Your task to perform on an android device: turn vacation reply on in the gmail app Image 0: 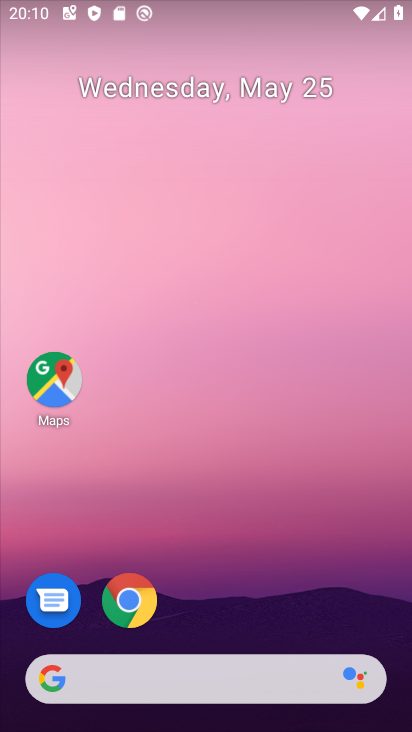
Step 0: drag from (389, 559) to (278, 148)
Your task to perform on an android device: turn vacation reply on in the gmail app Image 1: 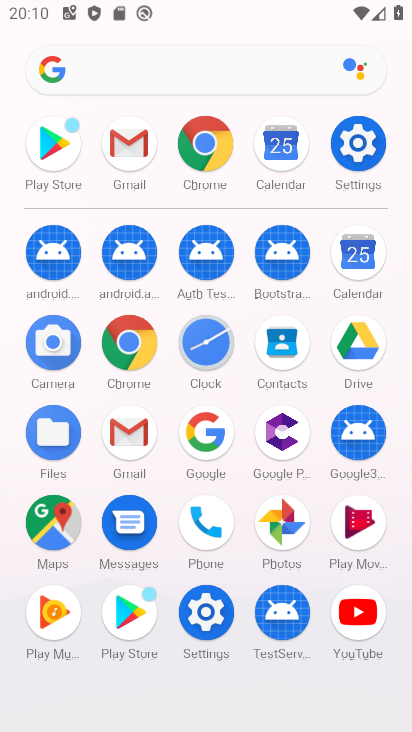
Step 1: click (122, 448)
Your task to perform on an android device: turn vacation reply on in the gmail app Image 2: 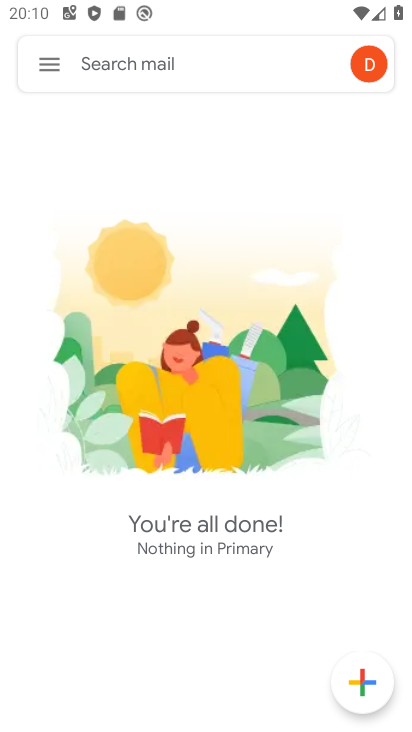
Step 2: click (54, 78)
Your task to perform on an android device: turn vacation reply on in the gmail app Image 3: 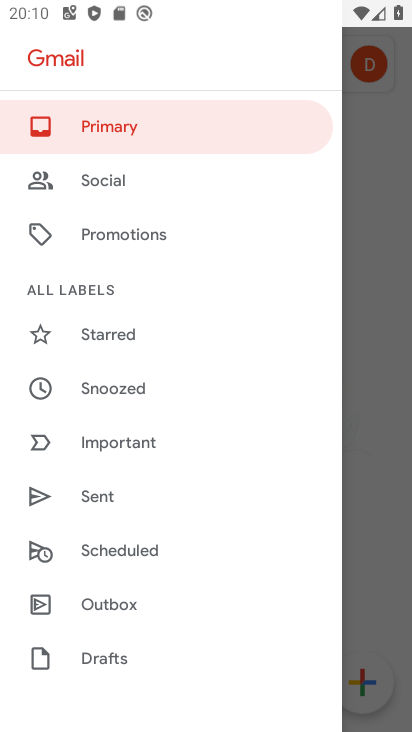
Step 3: drag from (232, 659) to (223, 134)
Your task to perform on an android device: turn vacation reply on in the gmail app Image 4: 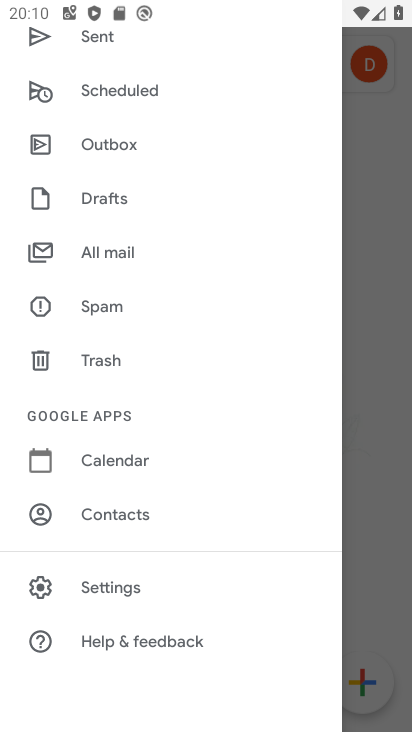
Step 4: click (154, 592)
Your task to perform on an android device: turn vacation reply on in the gmail app Image 5: 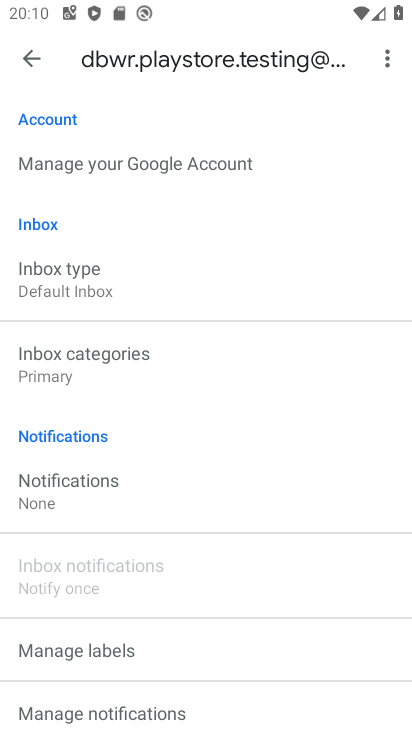
Step 5: drag from (221, 610) to (204, 230)
Your task to perform on an android device: turn vacation reply on in the gmail app Image 6: 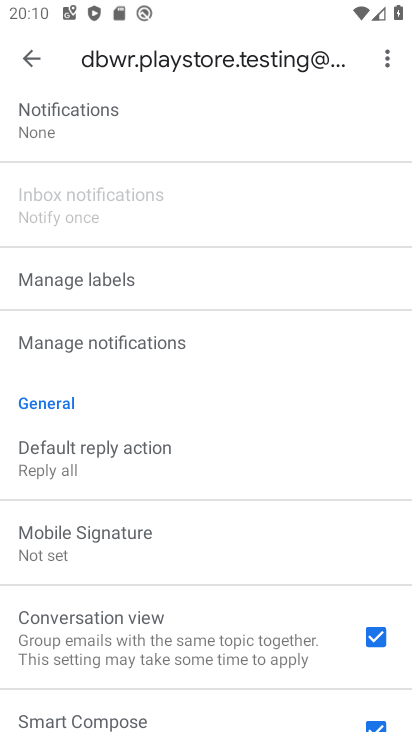
Step 6: drag from (171, 653) to (231, 217)
Your task to perform on an android device: turn vacation reply on in the gmail app Image 7: 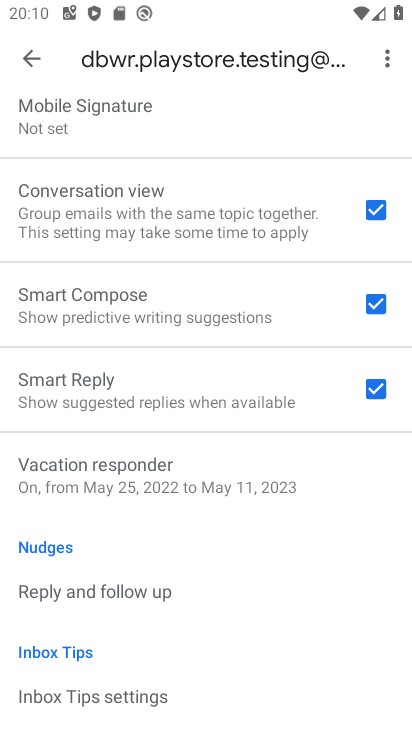
Step 7: click (203, 460)
Your task to perform on an android device: turn vacation reply on in the gmail app Image 8: 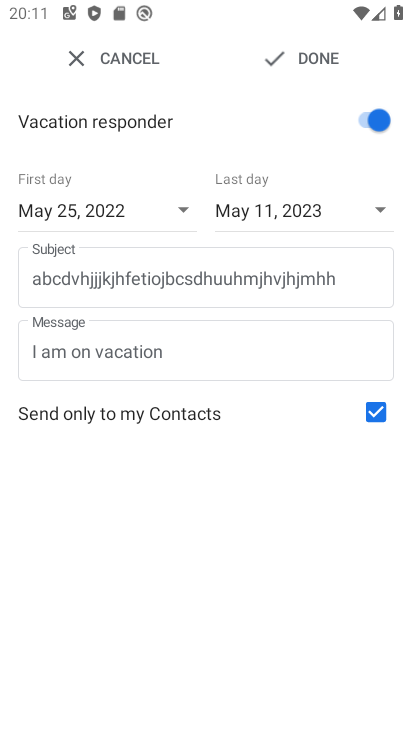
Step 8: task complete